Your task to perform on an android device: What's the weather? Image 0: 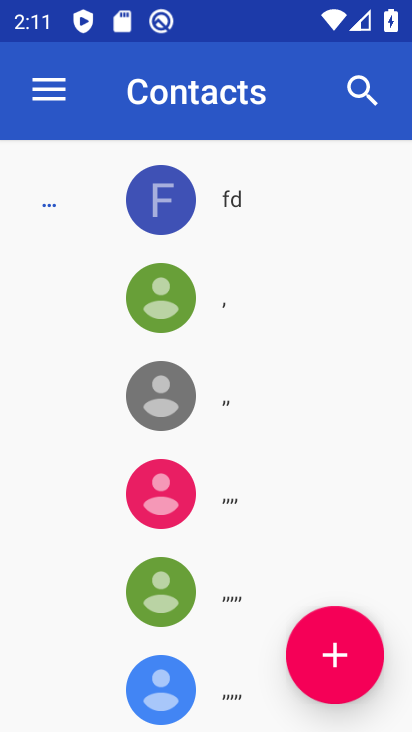
Step 0: press home button
Your task to perform on an android device: What's the weather? Image 1: 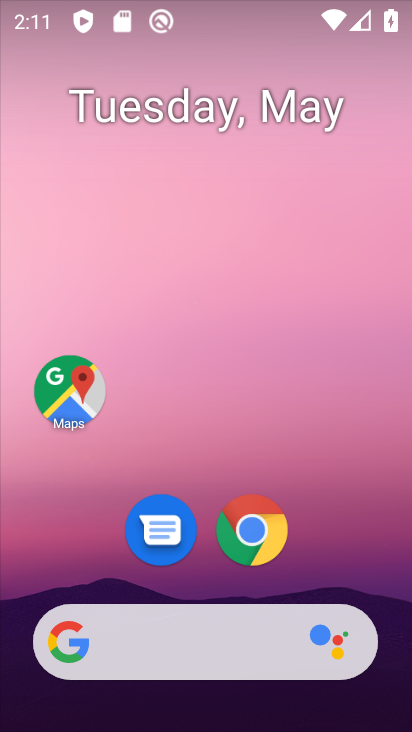
Step 1: click (133, 642)
Your task to perform on an android device: What's the weather? Image 2: 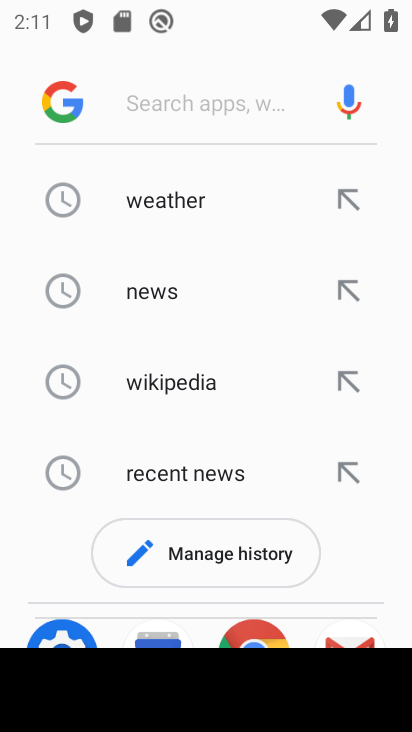
Step 2: click (185, 198)
Your task to perform on an android device: What's the weather? Image 3: 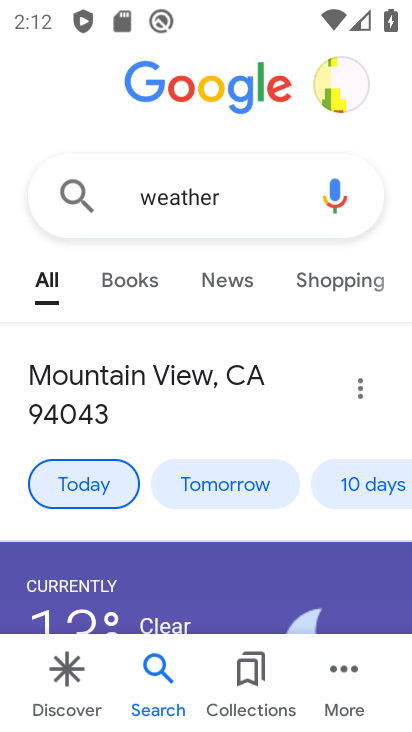
Step 3: task complete